Your task to perform on an android device: turn on showing notifications on the lock screen Image 0: 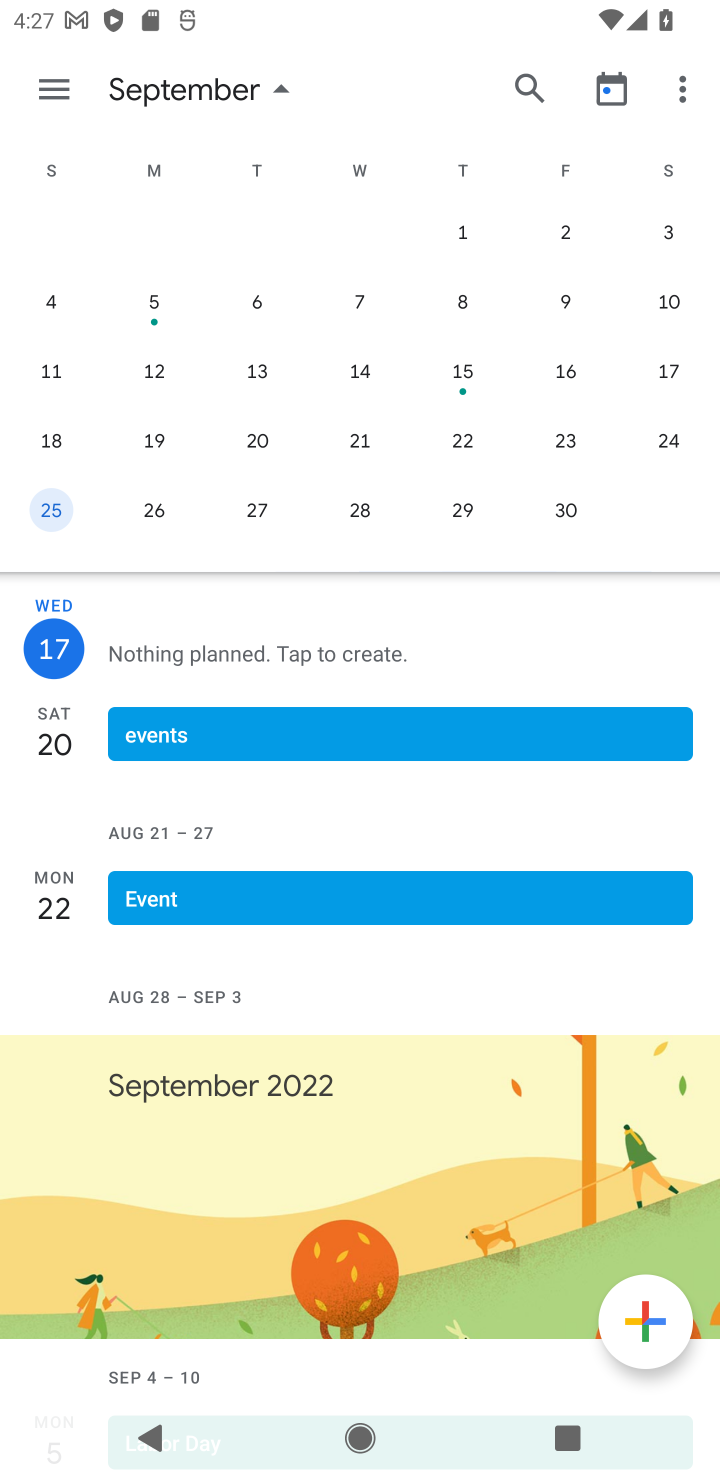
Step 0: press home button
Your task to perform on an android device: turn on showing notifications on the lock screen Image 1: 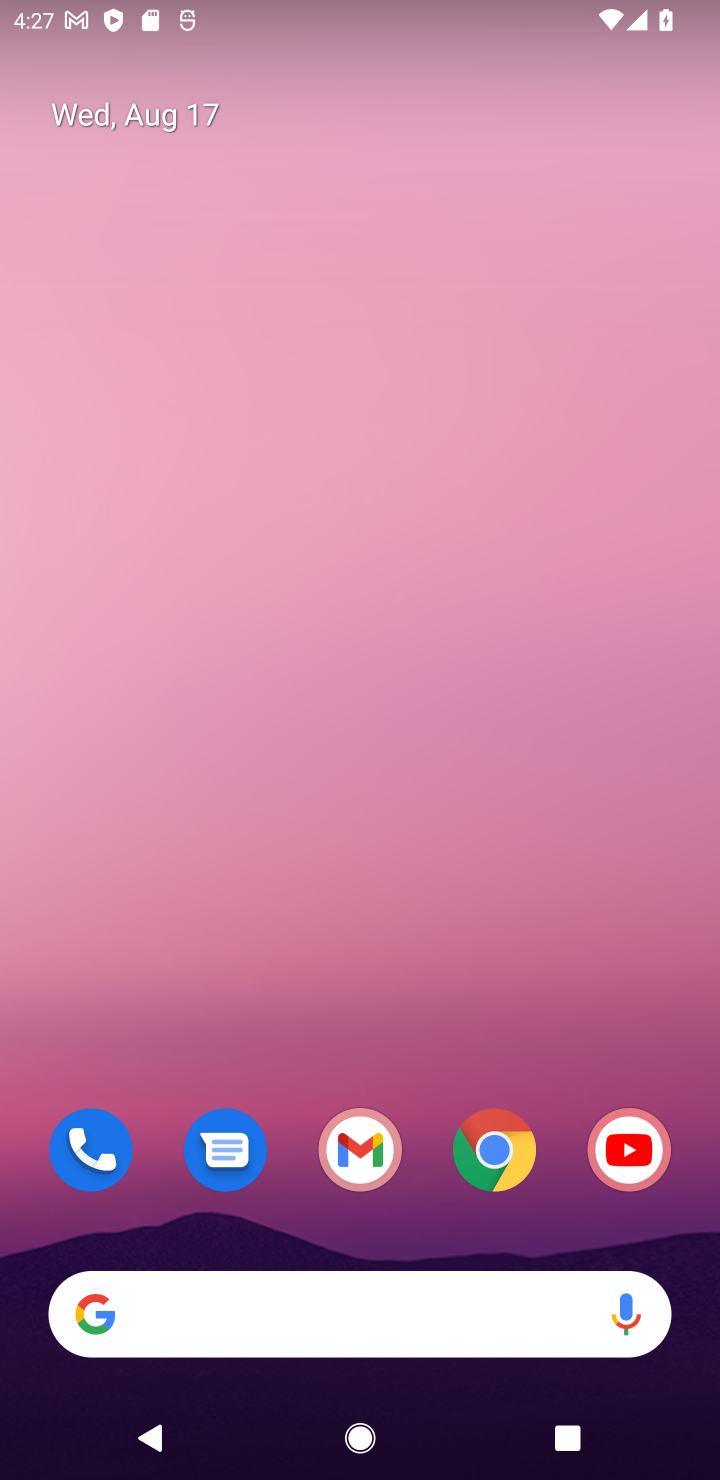
Step 1: drag from (659, 1210) to (408, 26)
Your task to perform on an android device: turn on showing notifications on the lock screen Image 2: 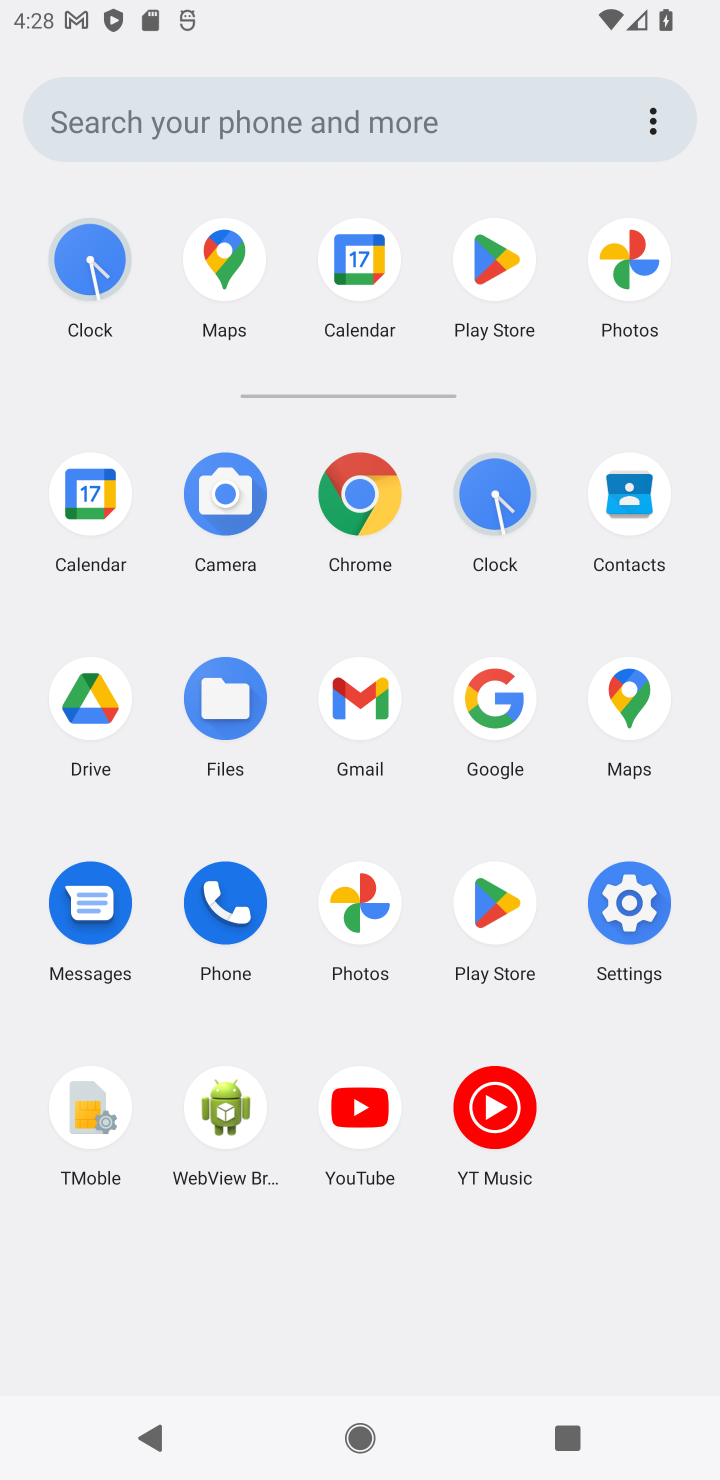
Step 2: click (614, 917)
Your task to perform on an android device: turn on showing notifications on the lock screen Image 3: 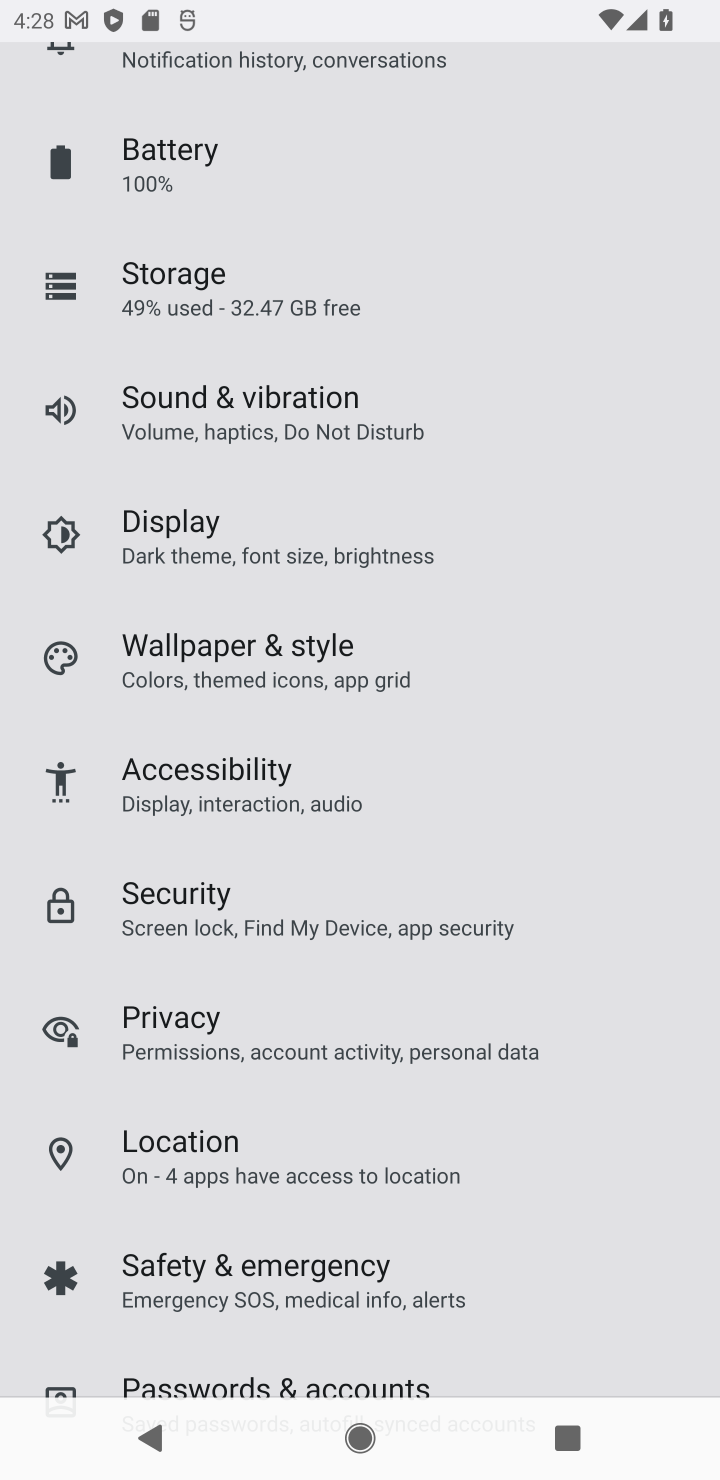
Step 3: drag from (234, 296) to (377, 1311)
Your task to perform on an android device: turn on showing notifications on the lock screen Image 4: 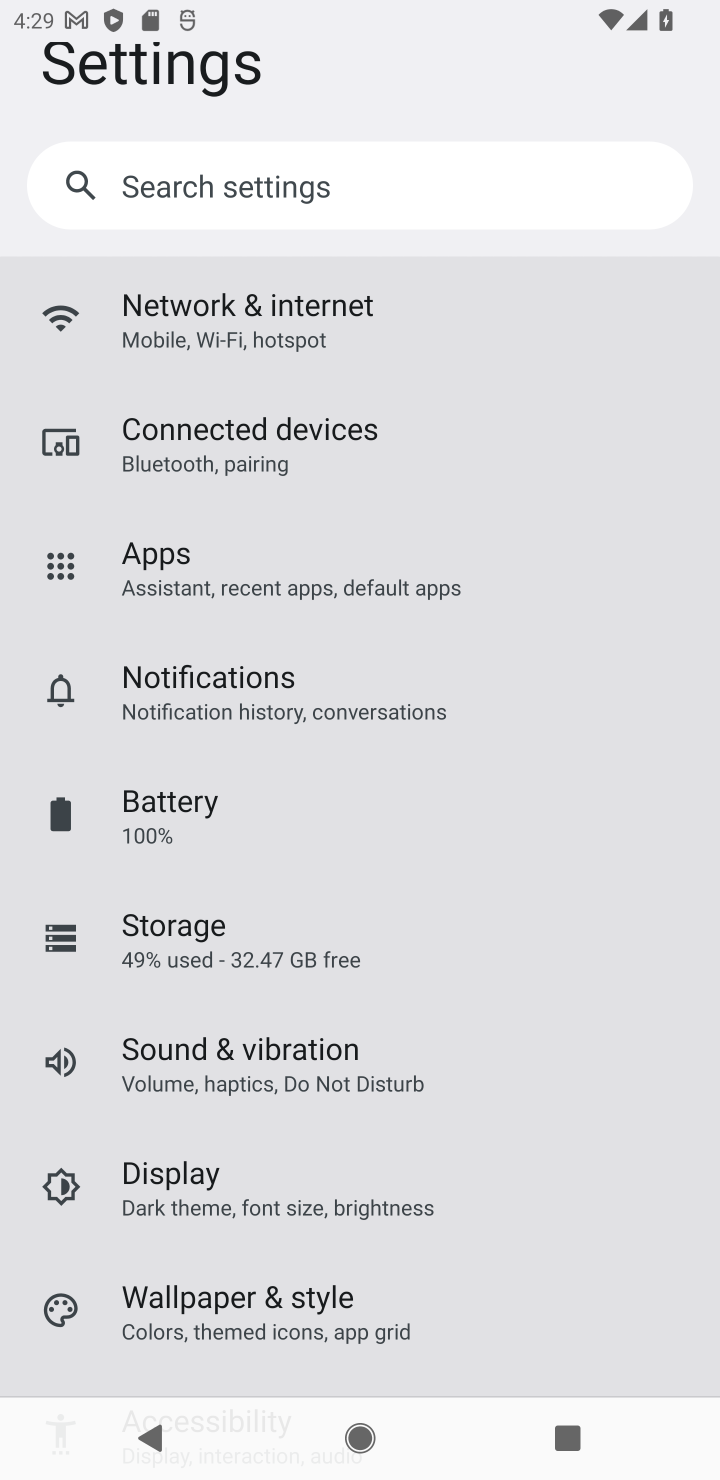
Step 4: click (316, 682)
Your task to perform on an android device: turn on showing notifications on the lock screen Image 5: 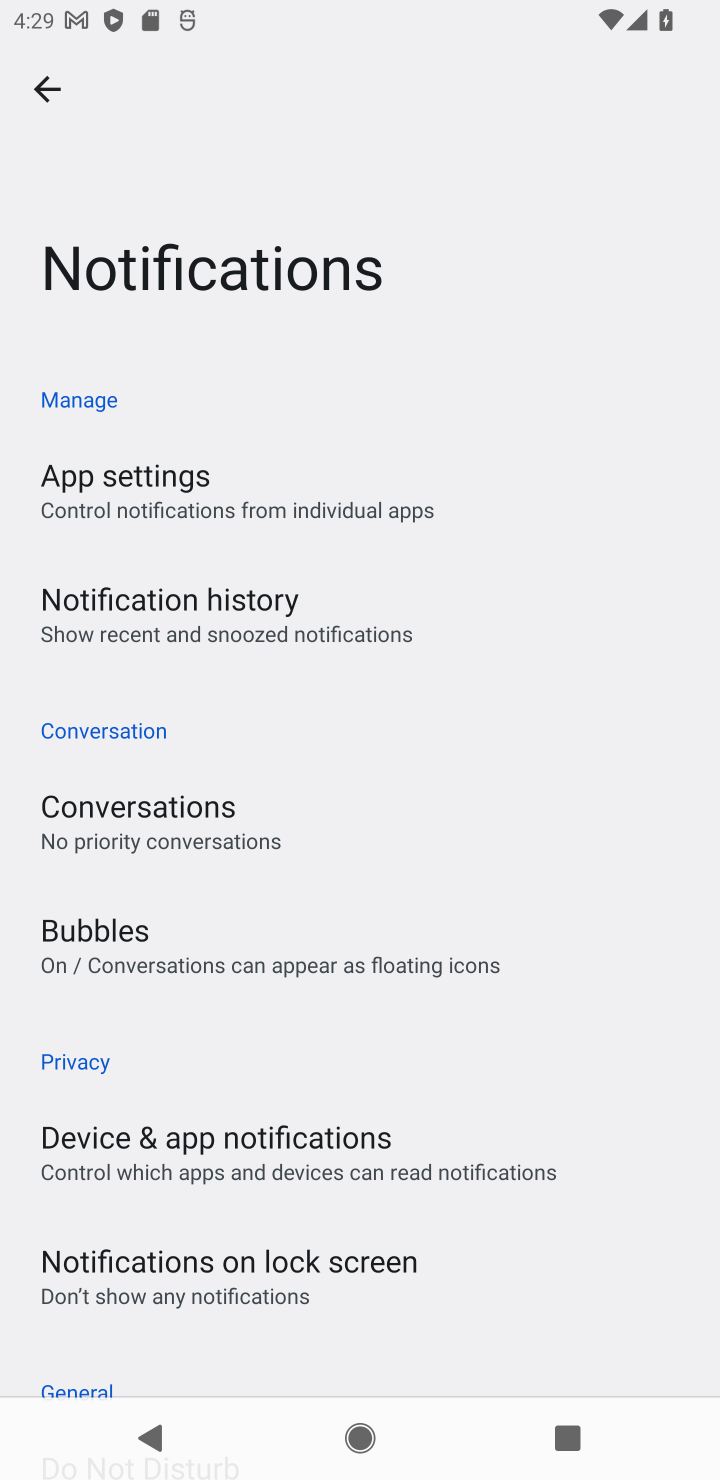
Step 5: click (363, 1299)
Your task to perform on an android device: turn on showing notifications on the lock screen Image 6: 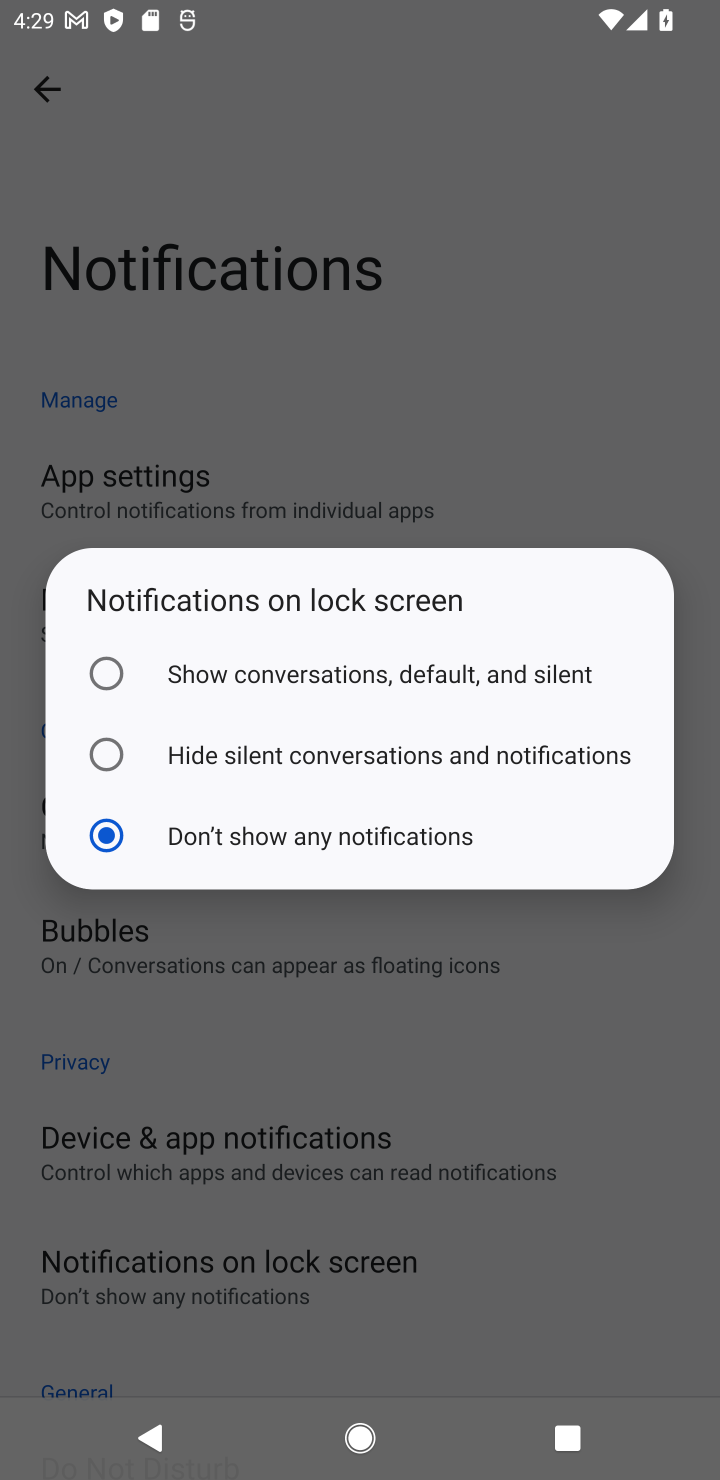
Step 6: click (125, 673)
Your task to perform on an android device: turn on showing notifications on the lock screen Image 7: 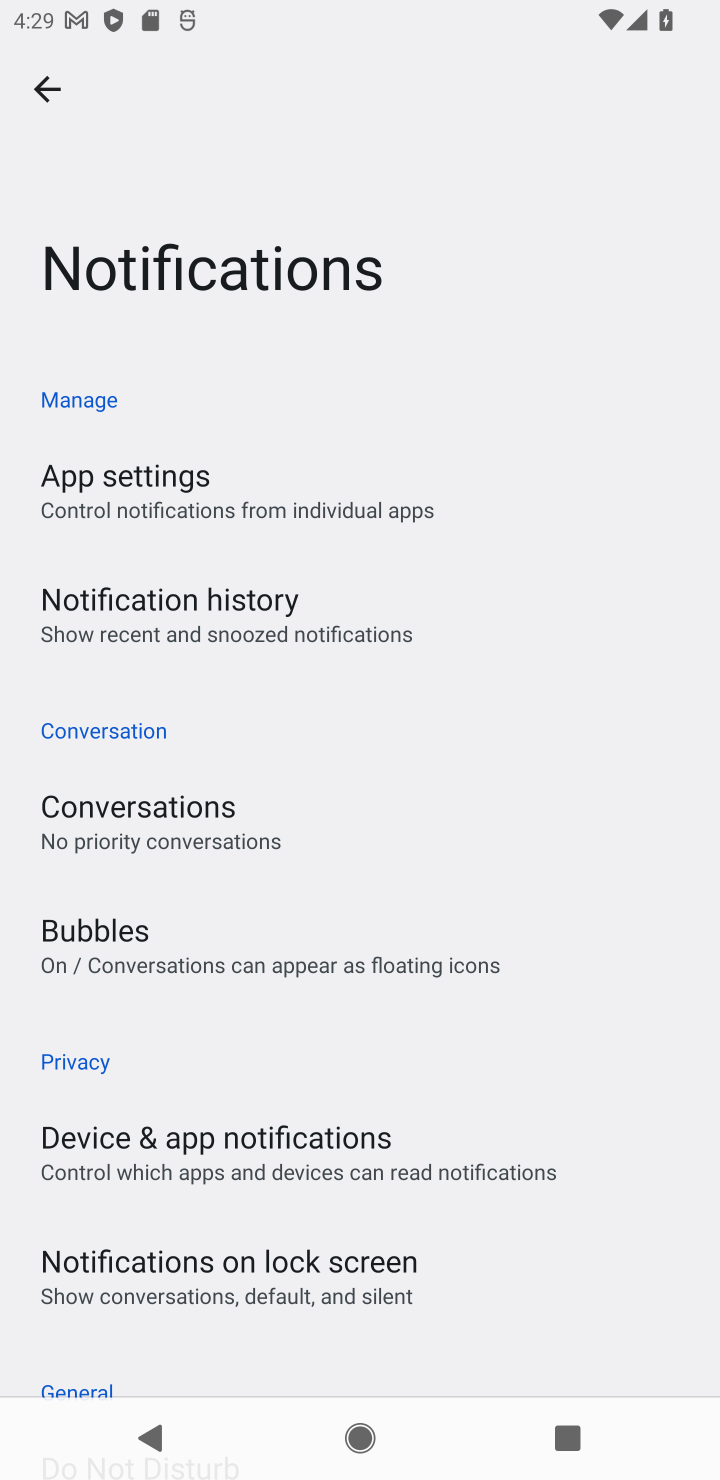
Step 7: task complete